Your task to perform on an android device: Go to ESPN.com Image 0: 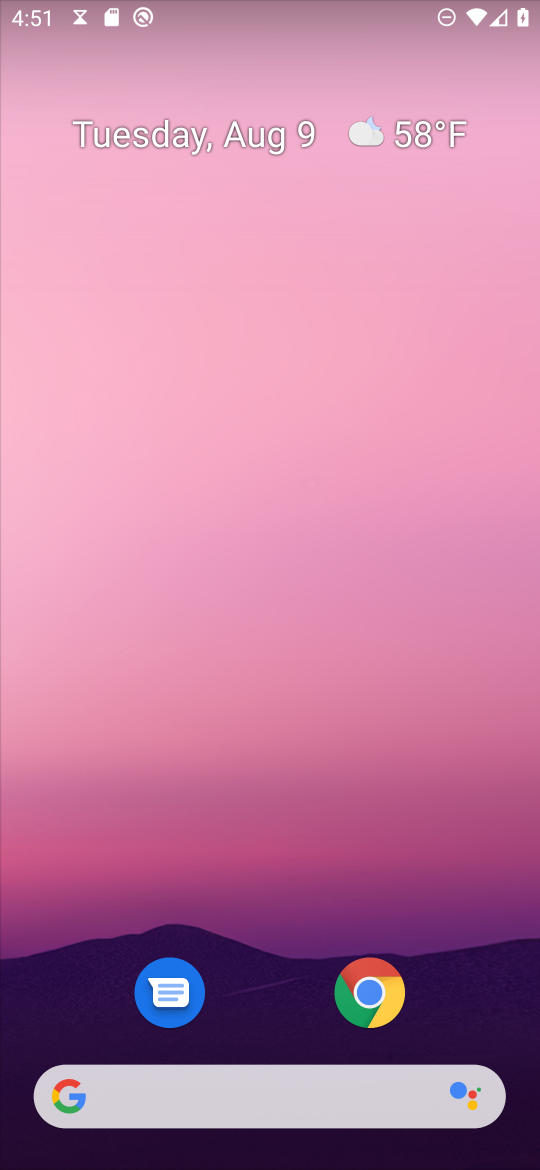
Step 0: drag from (313, 1082) to (11, 2)
Your task to perform on an android device: Go to ESPN.com Image 1: 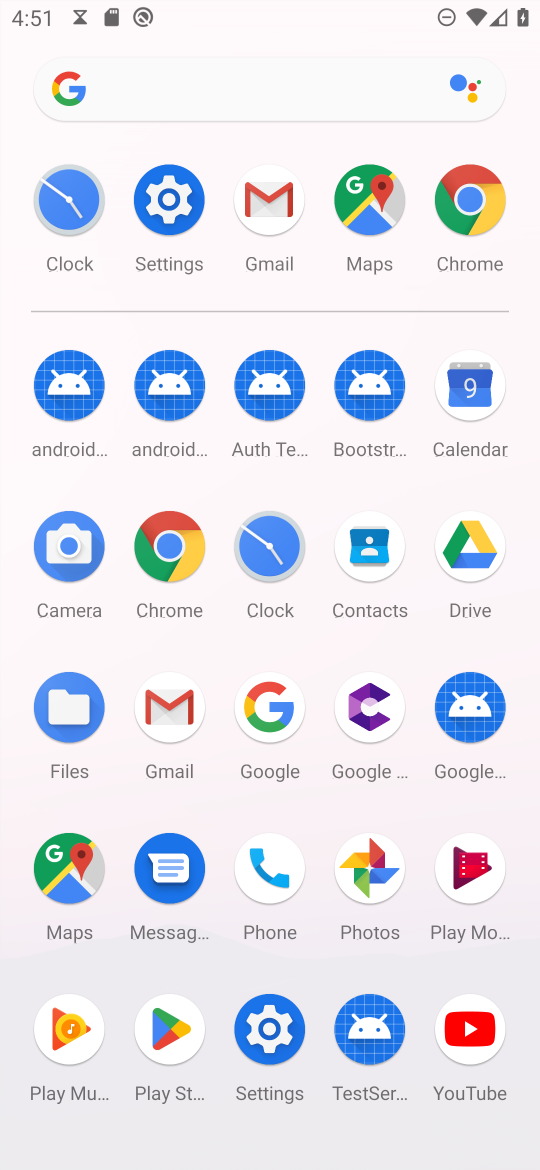
Step 1: click (160, 531)
Your task to perform on an android device: Go to ESPN.com Image 2: 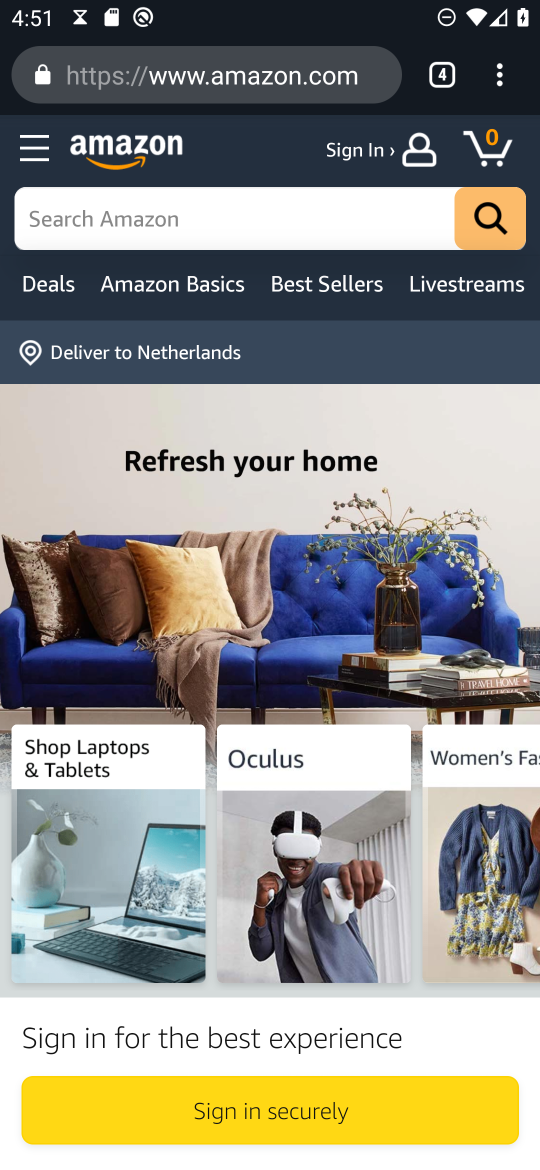
Step 2: click (492, 78)
Your task to perform on an android device: Go to ESPN.com Image 3: 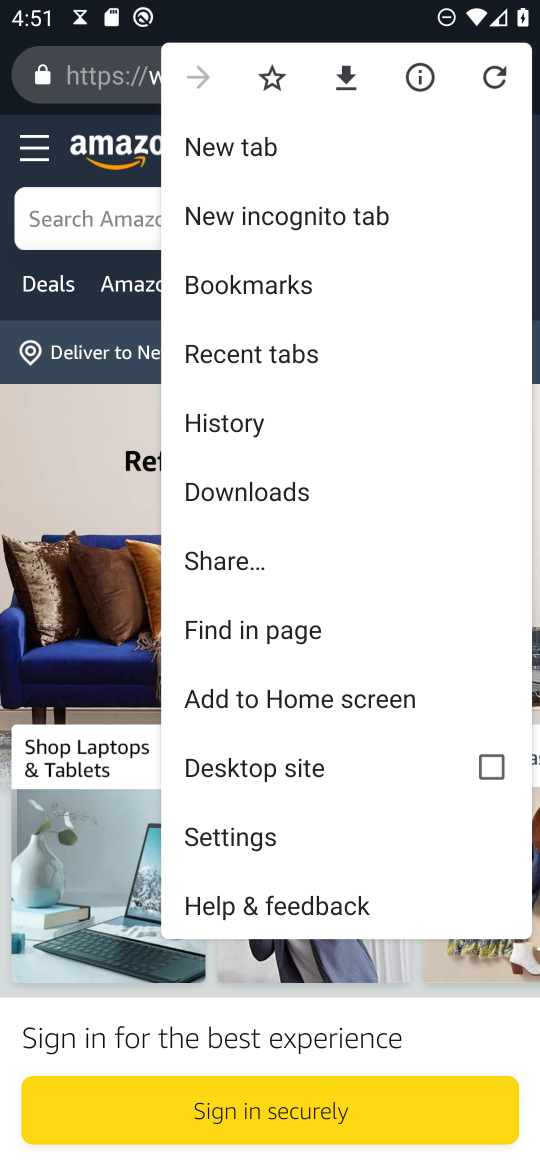
Step 3: click (306, 139)
Your task to perform on an android device: Go to ESPN.com Image 4: 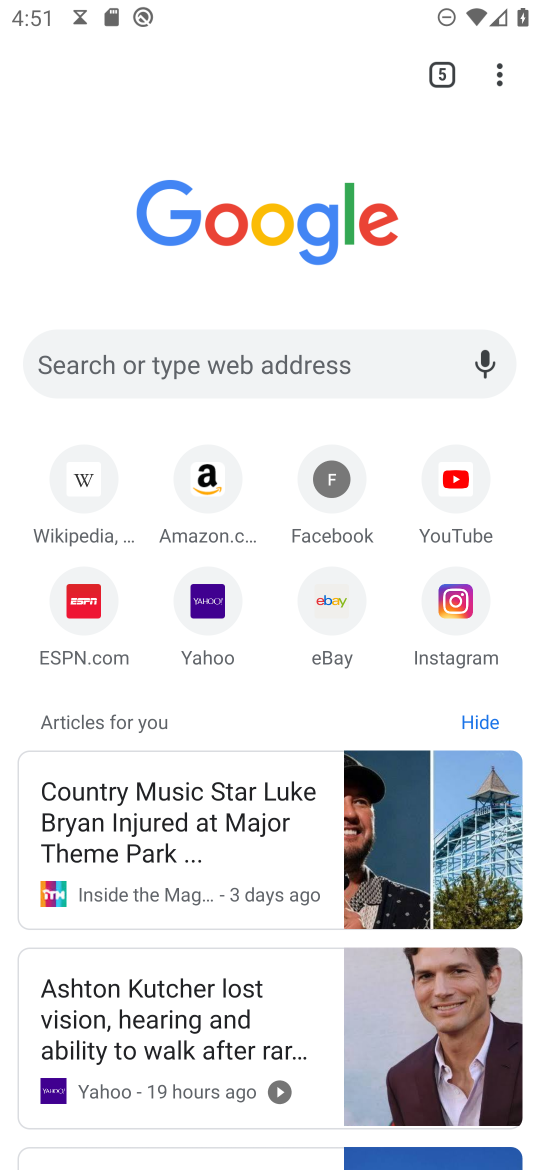
Step 4: click (97, 585)
Your task to perform on an android device: Go to ESPN.com Image 5: 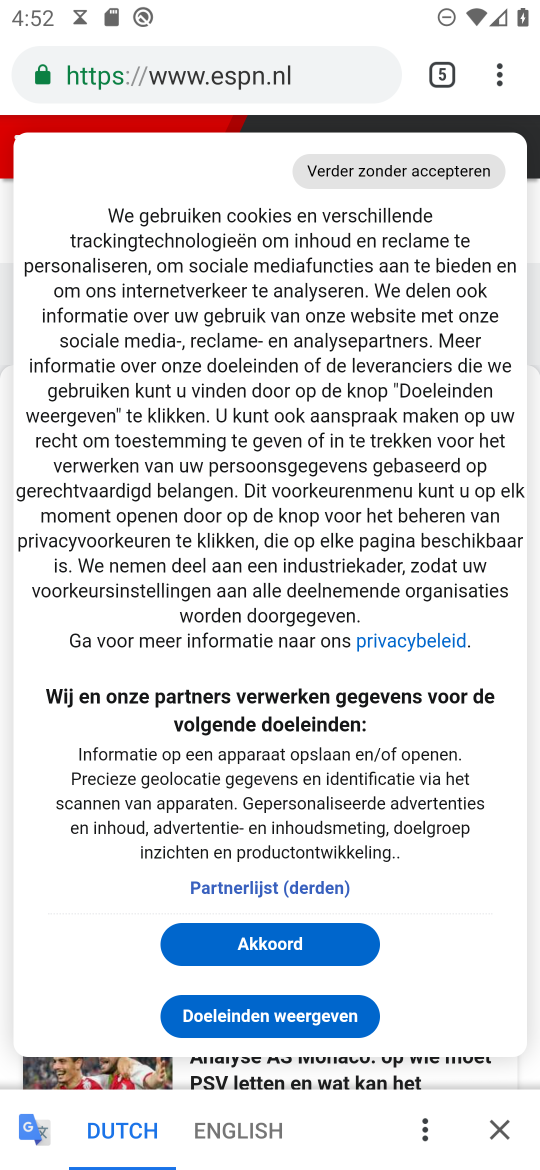
Step 5: task complete